Your task to perform on an android device: toggle improve location accuracy Image 0: 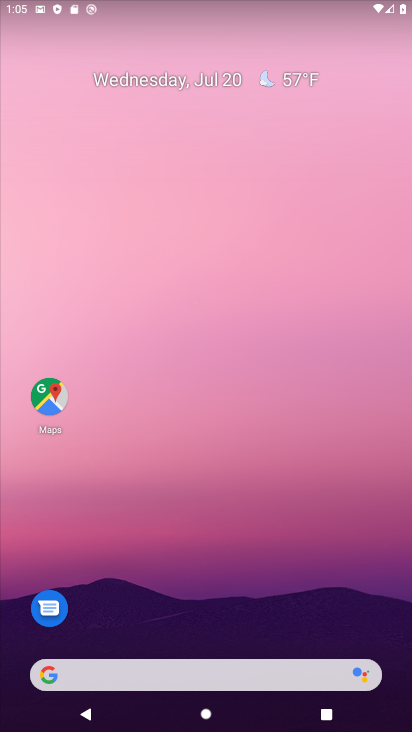
Step 0: drag from (230, 624) to (339, 55)
Your task to perform on an android device: toggle improve location accuracy Image 1: 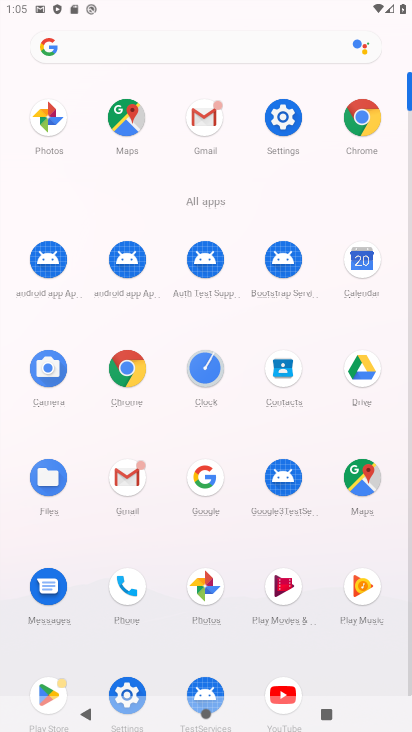
Step 1: click (284, 113)
Your task to perform on an android device: toggle improve location accuracy Image 2: 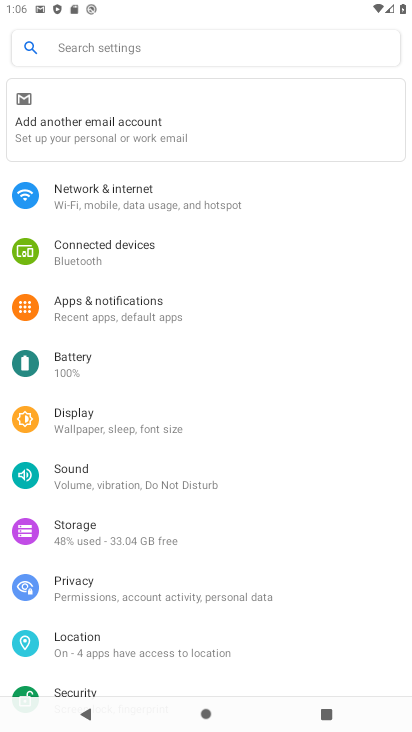
Step 2: click (86, 409)
Your task to perform on an android device: toggle improve location accuracy Image 3: 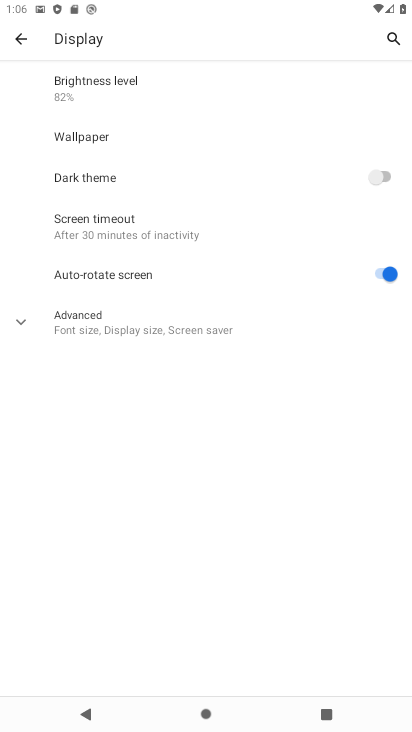
Step 3: click (160, 320)
Your task to perform on an android device: toggle improve location accuracy Image 4: 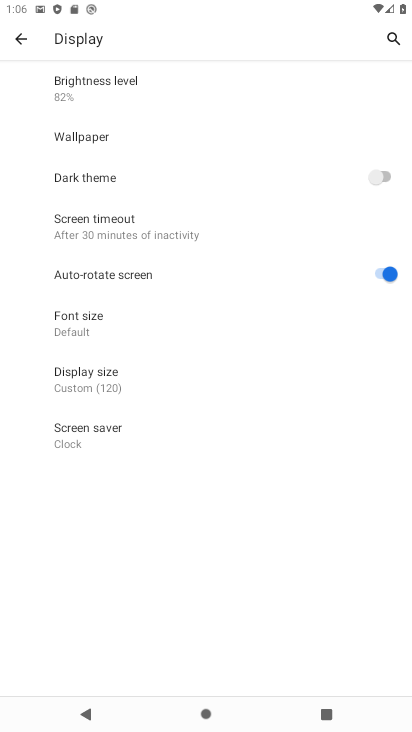
Step 4: click (90, 373)
Your task to perform on an android device: toggle improve location accuracy Image 5: 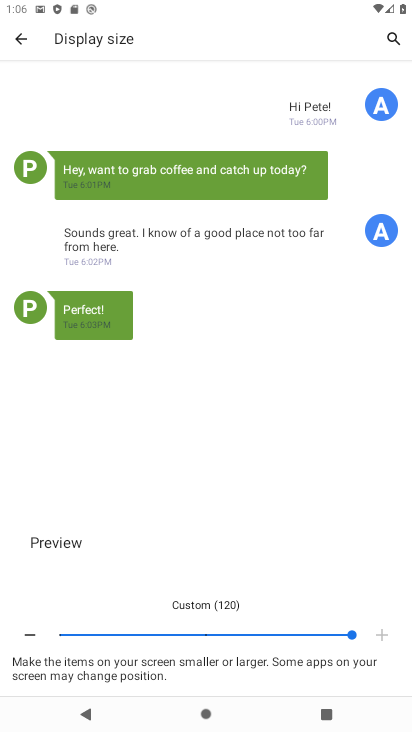
Step 5: click (206, 632)
Your task to perform on an android device: toggle improve location accuracy Image 6: 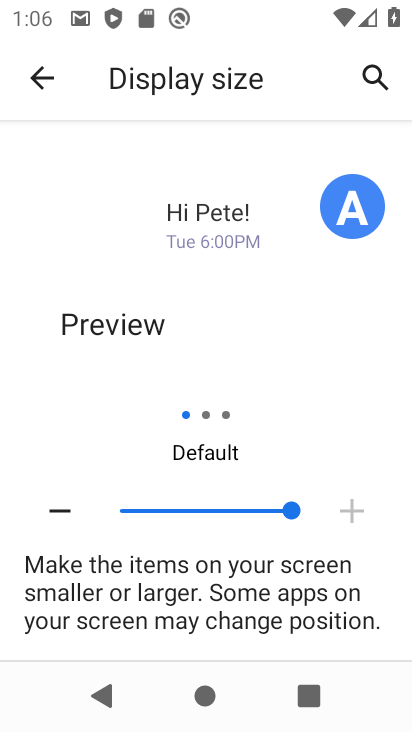
Step 6: click (36, 70)
Your task to perform on an android device: toggle improve location accuracy Image 7: 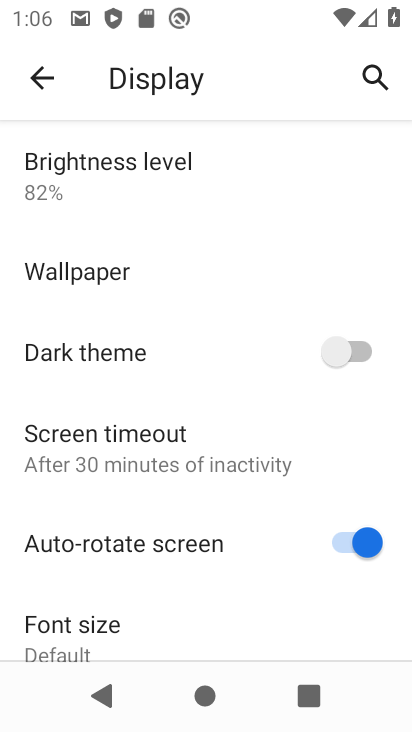
Step 7: click (50, 66)
Your task to perform on an android device: toggle improve location accuracy Image 8: 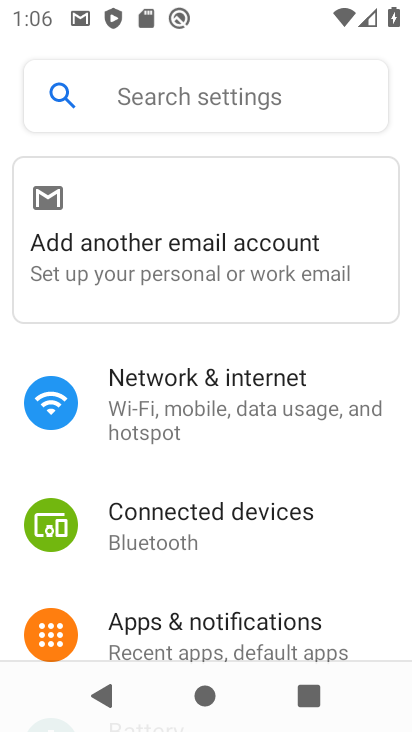
Step 8: drag from (210, 554) to (300, 113)
Your task to perform on an android device: toggle improve location accuracy Image 9: 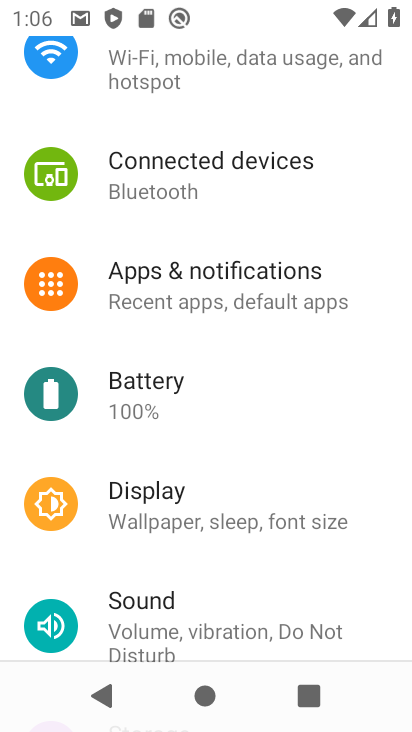
Step 9: drag from (198, 559) to (342, 60)
Your task to perform on an android device: toggle improve location accuracy Image 10: 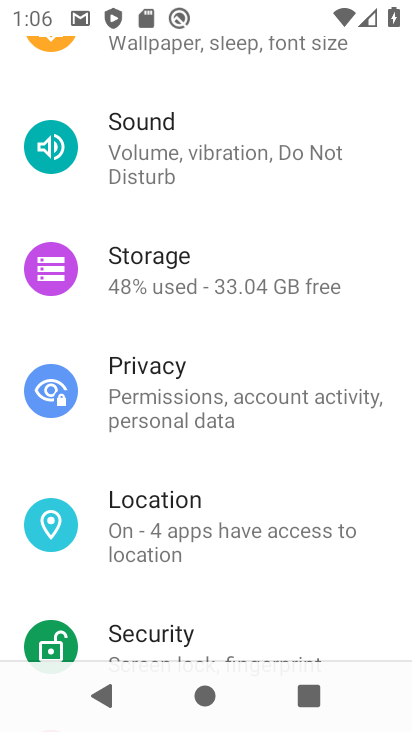
Step 10: click (170, 521)
Your task to perform on an android device: toggle improve location accuracy Image 11: 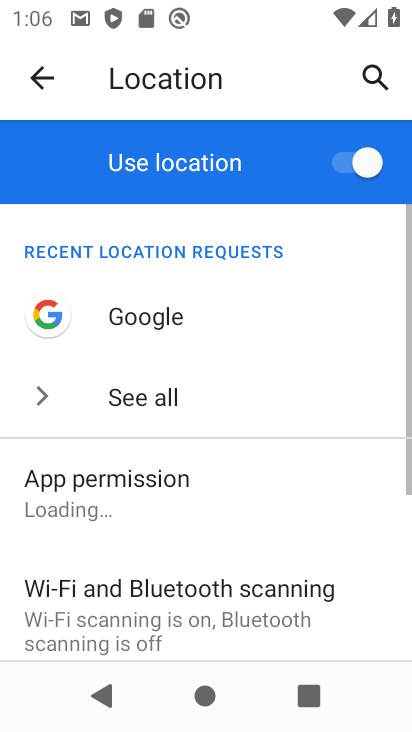
Step 11: drag from (113, 567) to (219, 93)
Your task to perform on an android device: toggle improve location accuracy Image 12: 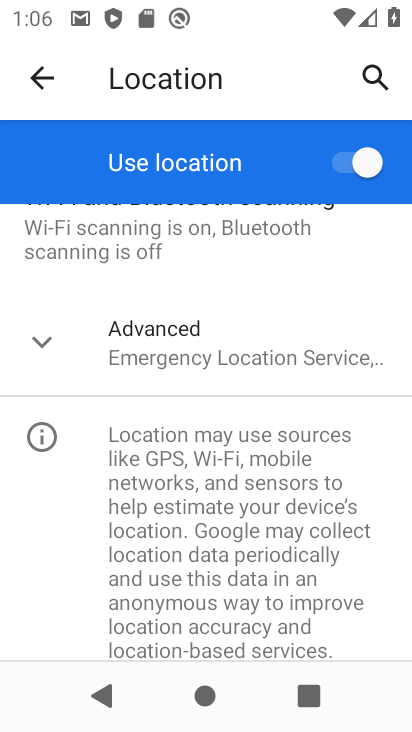
Step 12: click (167, 349)
Your task to perform on an android device: toggle improve location accuracy Image 13: 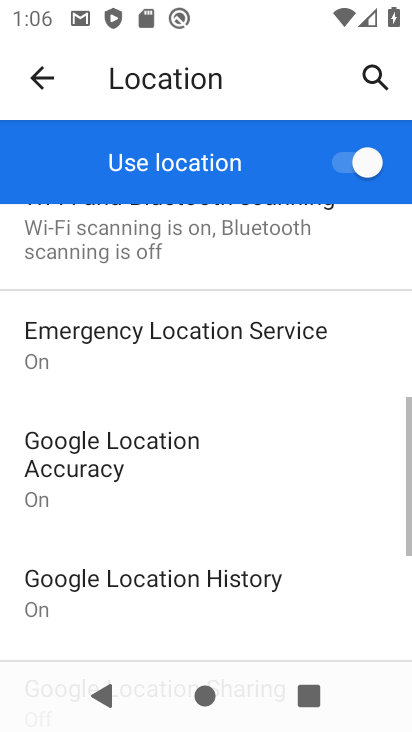
Step 13: click (81, 466)
Your task to perform on an android device: toggle improve location accuracy Image 14: 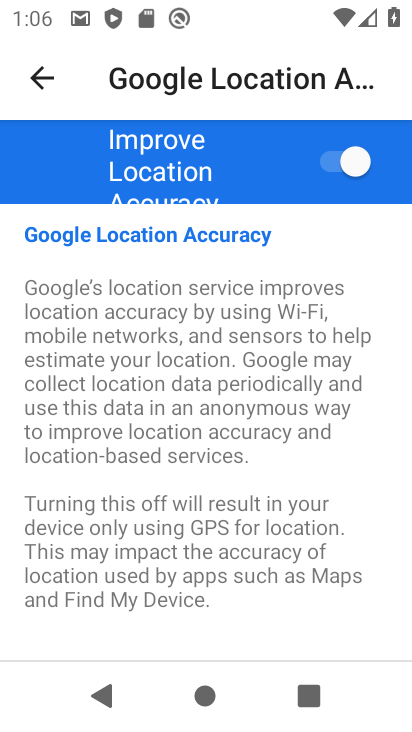
Step 14: click (317, 70)
Your task to perform on an android device: toggle improve location accuracy Image 15: 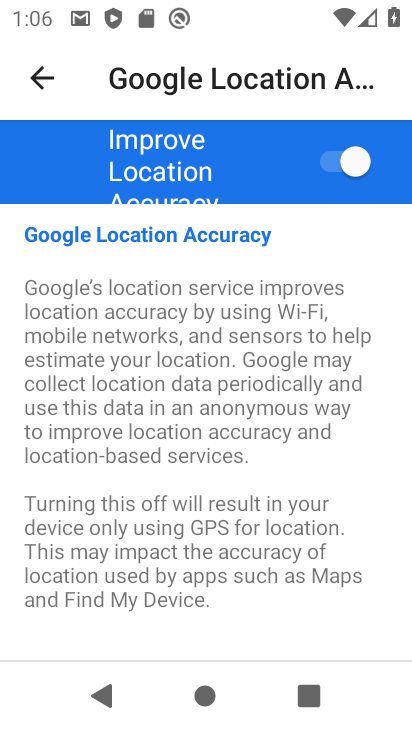
Step 15: click (332, 173)
Your task to perform on an android device: toggle improve location accuracy Image 16: 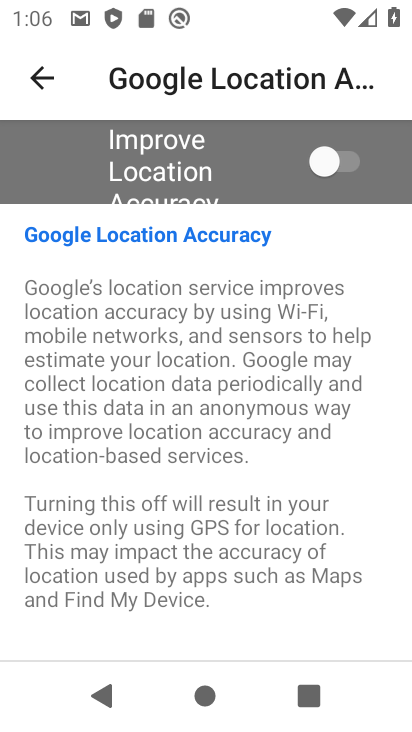
Step 16: task complete